Your task to perform on an android device: Open Amazon Image 0: 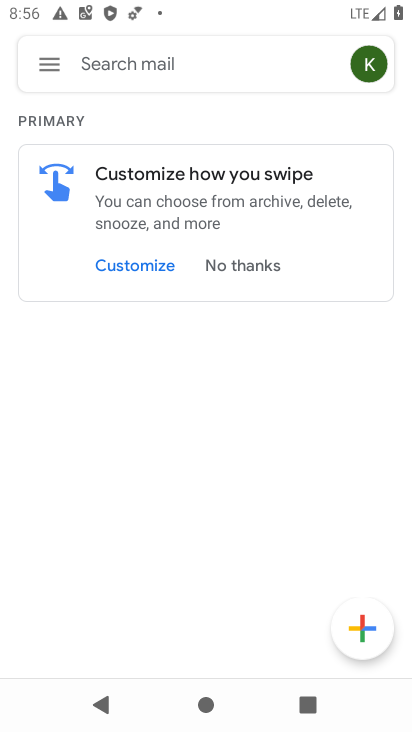
Step 0: press home button
Your task to perform on an android device: Open Amazon Image 1: 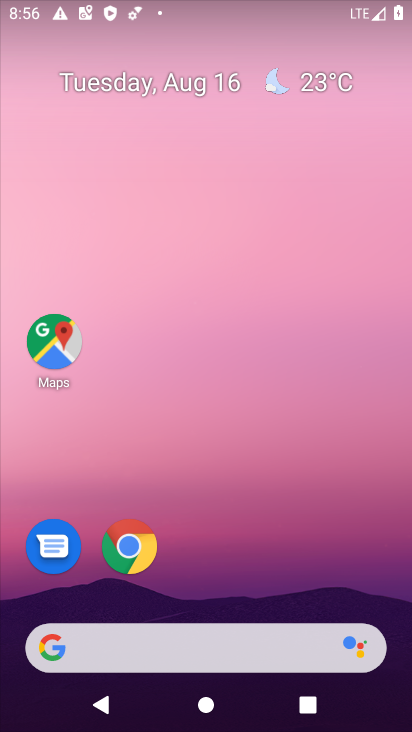
Step 1: click (132, 545)
Your task to perform on an android device: Open Amazon Image 2: 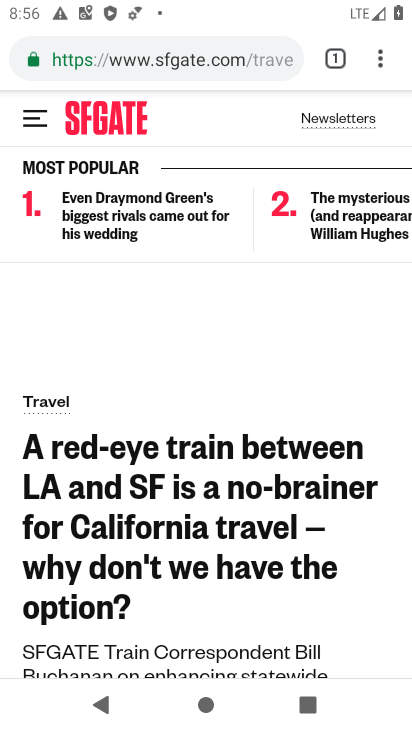
Step 2: click (326, 313)
Your task to perform on an android device: Open Amazon Image 3: 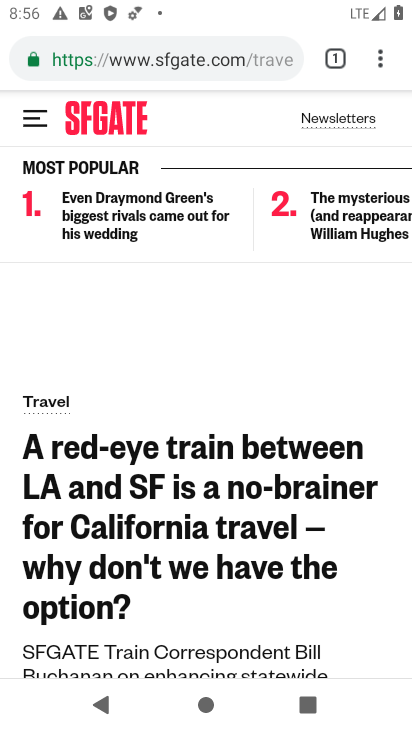
Step 3: task complete